Your task to perform on an android device: toggle show notifications on the lock screen Image 0: 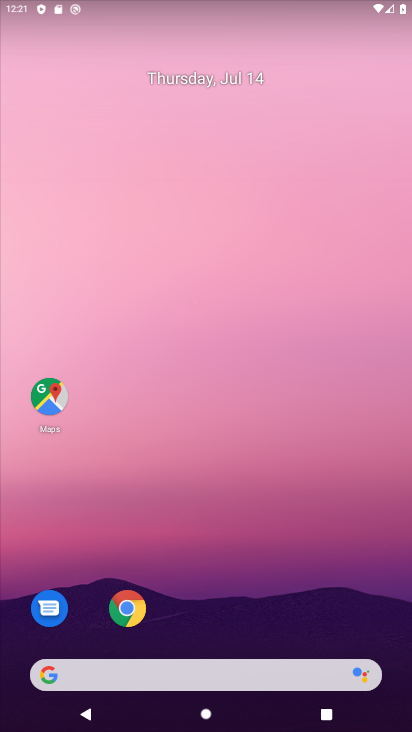
Step 0: drag from (359, 623) to (379, 81)
Your task to perform on an android device: toggle show notifications on the lock screen Image 1: 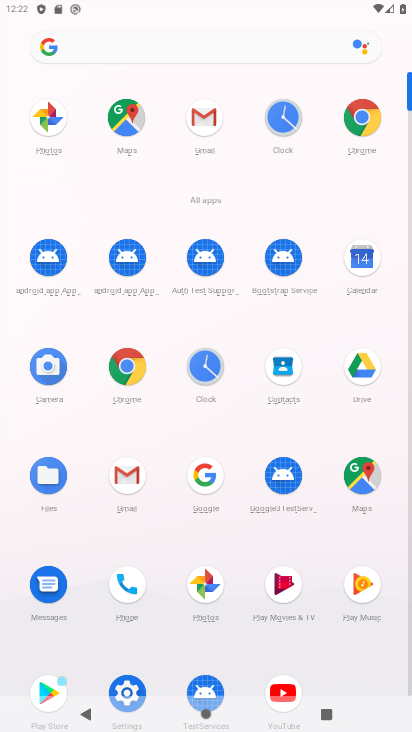
Step 1: drag from (372, 644) to (393, 427)
Your task to perform on an android device: toggle show notifications on the lock screen Image 2: 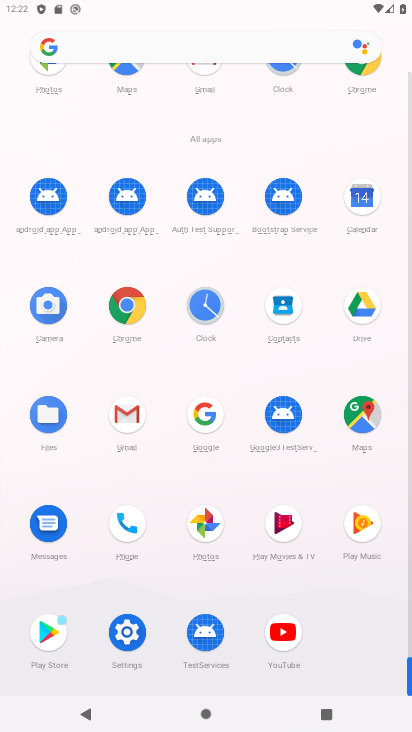
Step 2: click (123, 632)
Your task to perform on an android device: toggle show notifications on the lock screen Image 3: 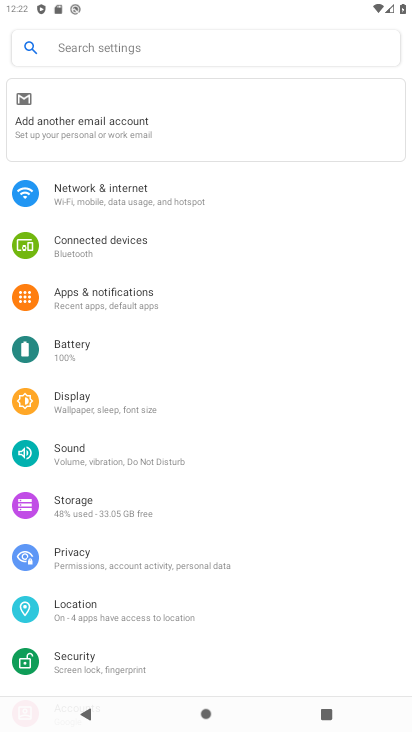
Step 3: drag from (328, 578) to (334, 456)
Your task to perform on an android device: toggle show notifications on the lock screen Image 4: 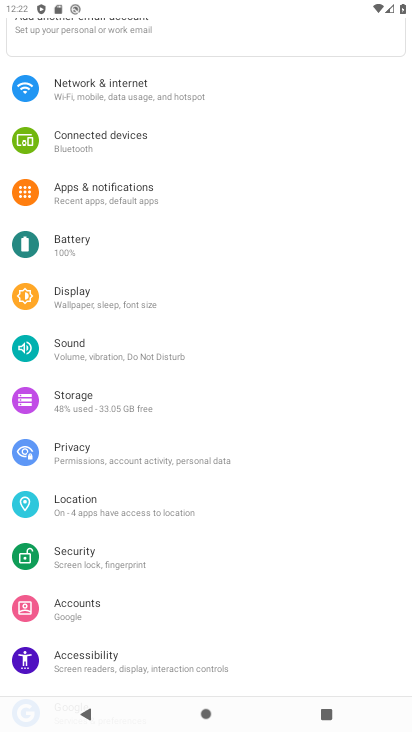
Step 4: drag from (314, 581) to (306, 469)
Your task to perform on an android device: toggle show notifications on the lock screen Image 5: 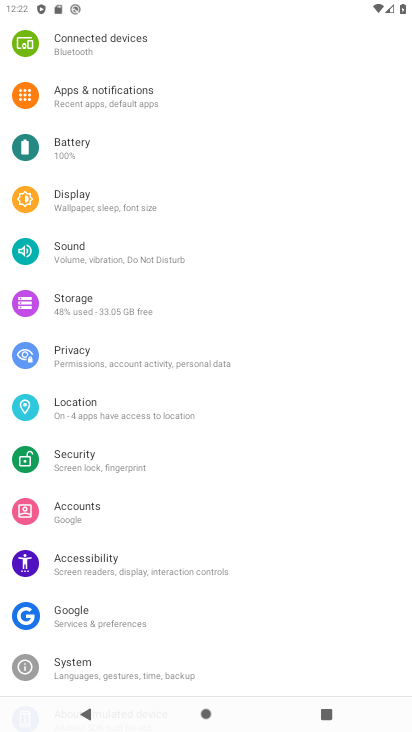
Step 5: drag from (296, 583) to (291, 437)
Your task to perform on an android device: toggle show notifications on the lock screen Image 6: 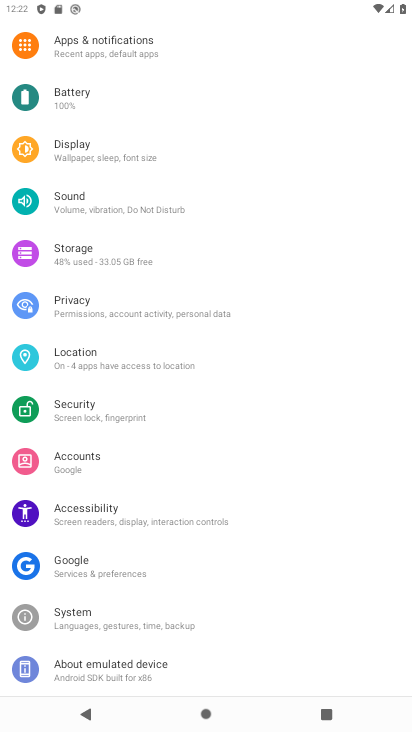
Step 6: drag from (280, 552) to (282, 429)
Your task to perform on an android device: toggle show notifications on the lock screen Image 7: 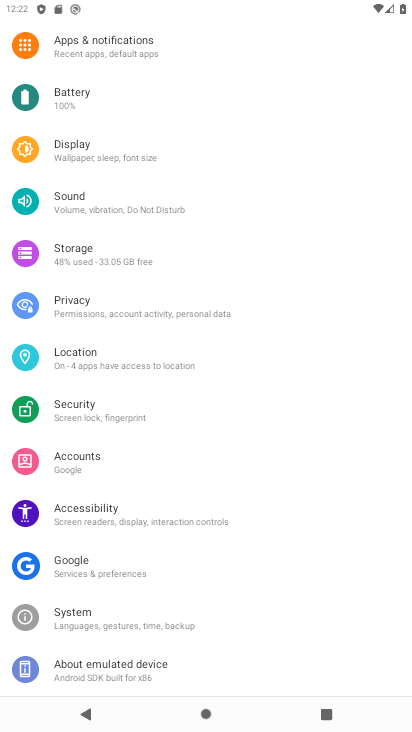
Step 7: drag from (325, 342) to (322, 440)
Your task to perform on an android device: toggle show notifications on the lock screen Image 8: 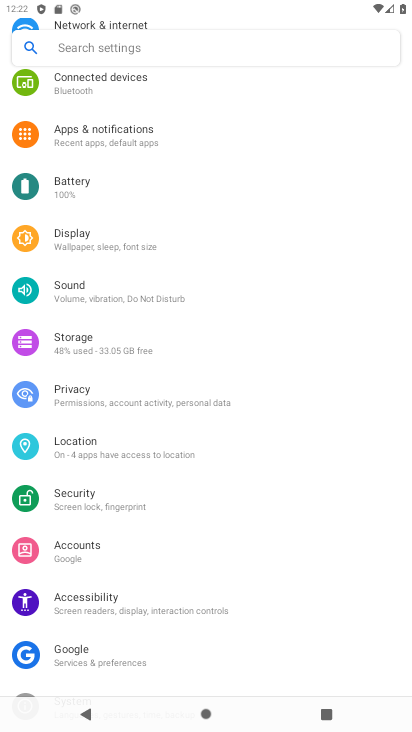
Step 8: drag from (322, 297) to (322, 443)
Your task to perform on an android device: toggle show notifications on the lock screen Image 9: 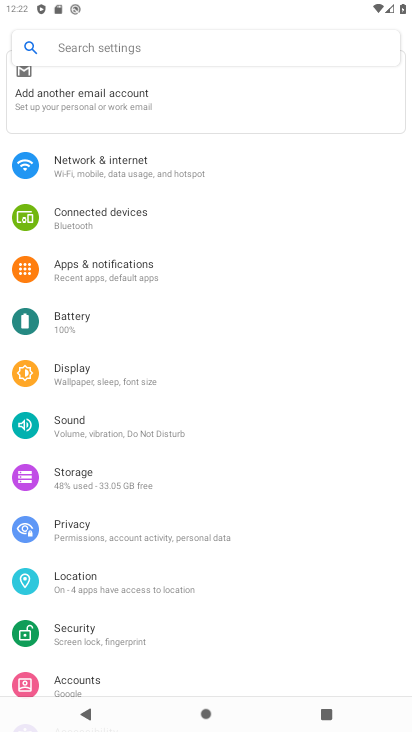
Step 9: click (157, 275)
Your task to perform on an android device: toggle show notifications on the lock screen Image 10: 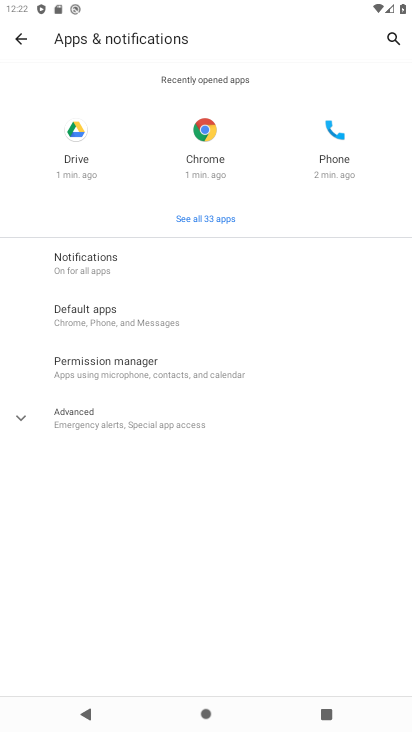
Step 10: click (157, 275)
Your task to perform on an android device: toggle show notifications on the lock screen Image 11: 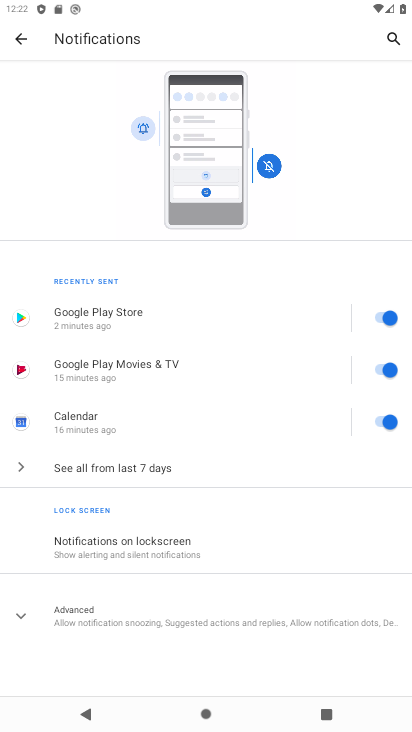
Step 11: click (240, 548)
Your task to perform on an android device: toggle show notifications on the lock screen Image 12: 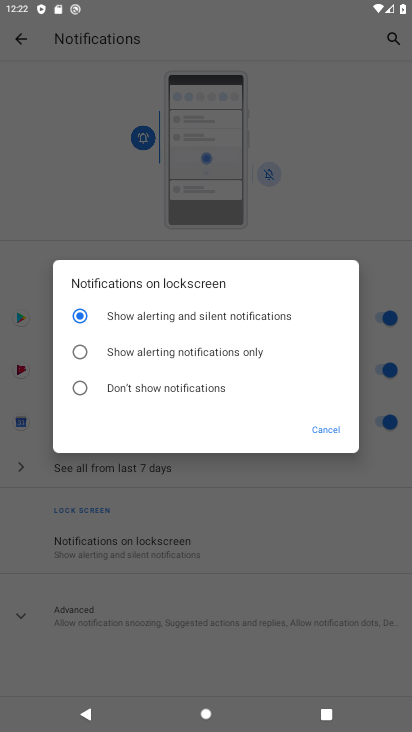
Step 12: click (180, 350)
Your task to perform on an android device: toggle show notifications on the lock screen Image 13: 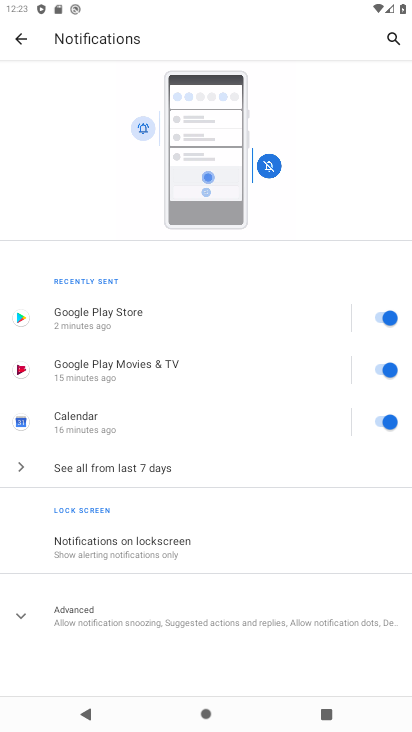
Step 13: task complete